Your task to perform on an android device: Open Chrome and go to settings Image 0: 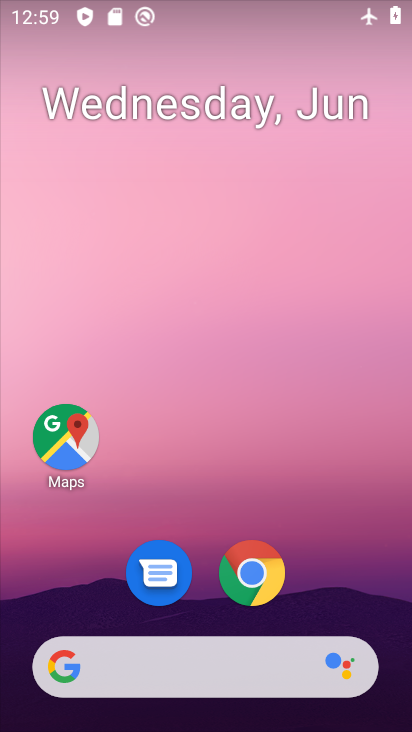
Step 0: drag from (302, 505) to (297, 127)
Your task to perform on an android device: Open Chrome and go to settings Image 1: 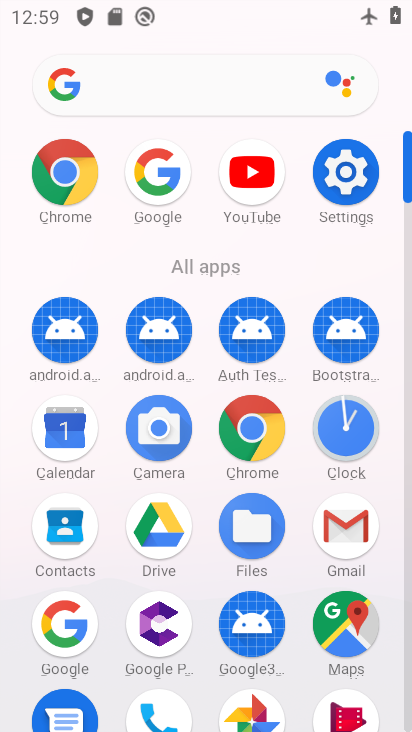
Step 1: click (271, 437)
Your task to perform on an android device: Open Chrome and go to settings Image 2: 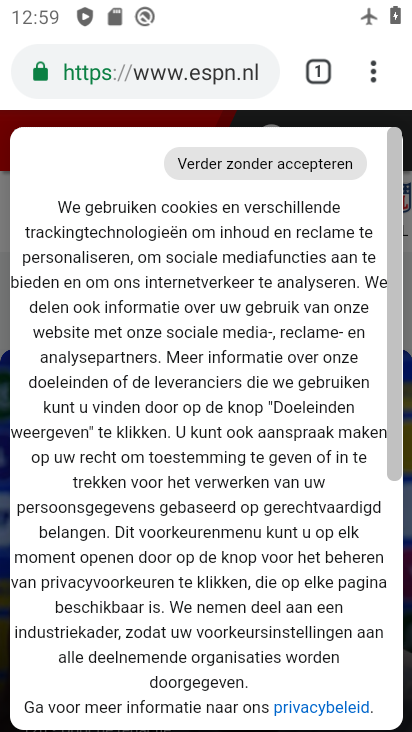
Step 2: task complete